Your task to perform on an android device: check battery use Image 0: 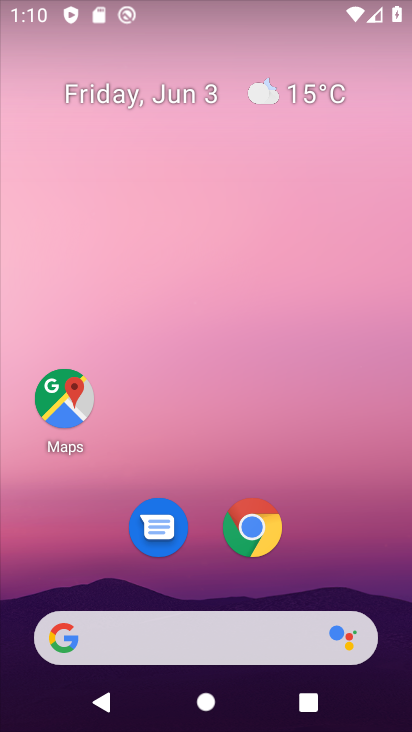
Step 0: drag from (353, 533) to (329, 8)
Your task to perform on an android device: check battery use Image 1: 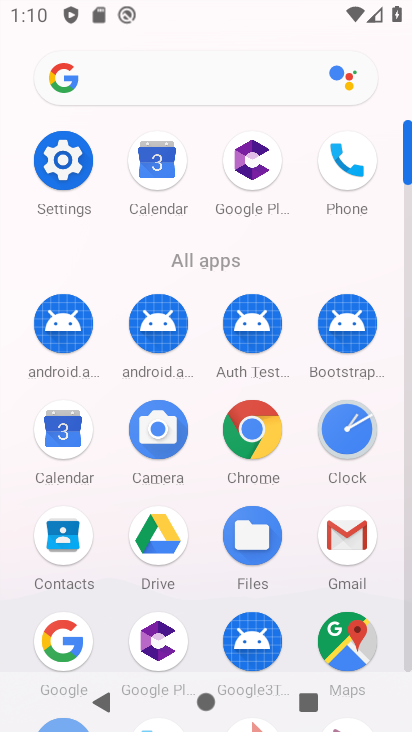
Step 1: click (85, 146)
Your task to perform on an android device: check battery use Image 2: 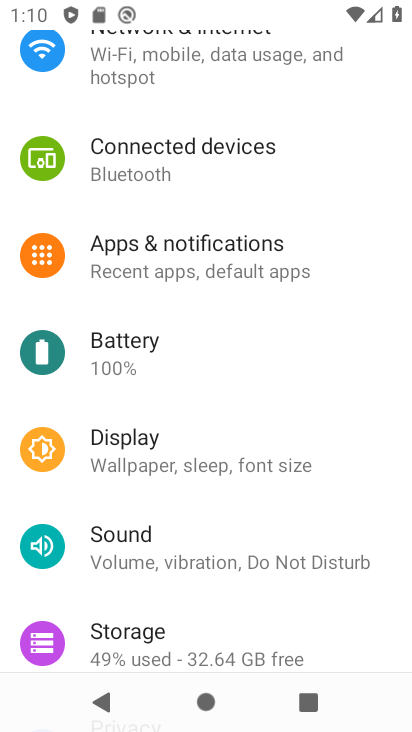
Step 2: click (188, 330)
Your task to perform on an android device: check battery use Image 3: 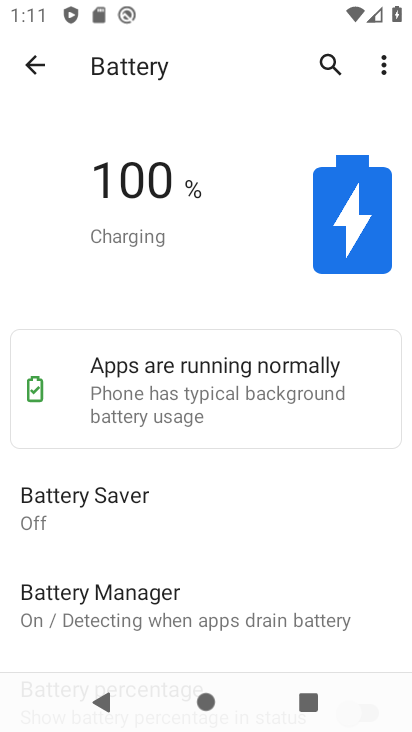
Step 3: click (380, 73)
Your task to perform on an android device: check battery use Image 4: 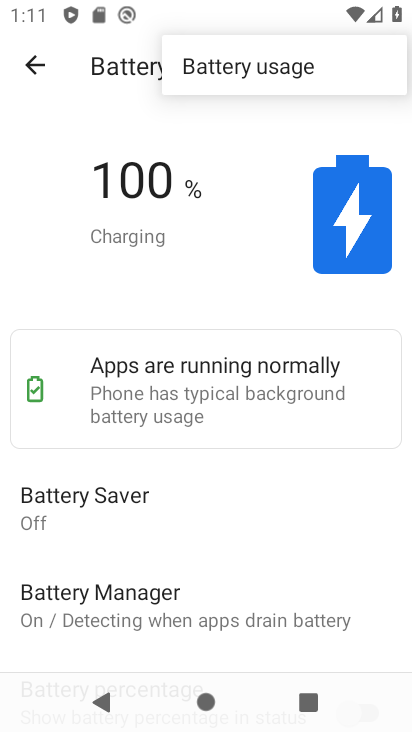
Step 4: click (351, 78)
Your task to perform on an android device: check battery use Image 5: 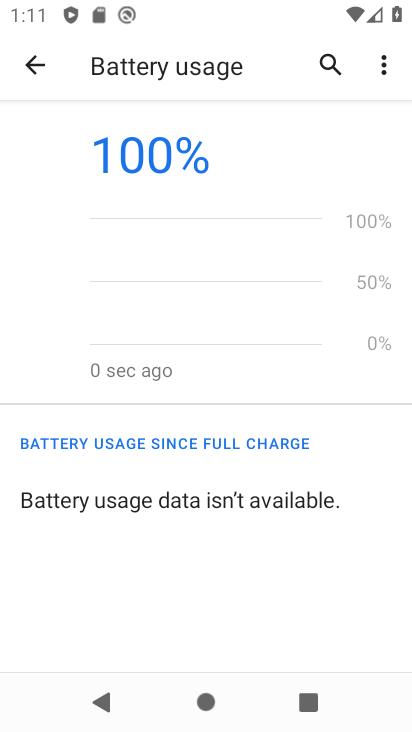
Step 5: task complete